Your task to perform on an android device: move an email to a new category in the gmail app Image 0: 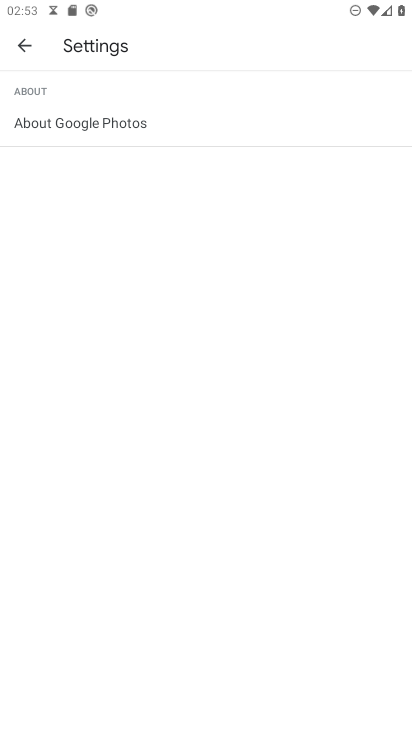
Step 0: press home button
Your task to perform on an android device: move an email to a new category in the gmail app Image 1: 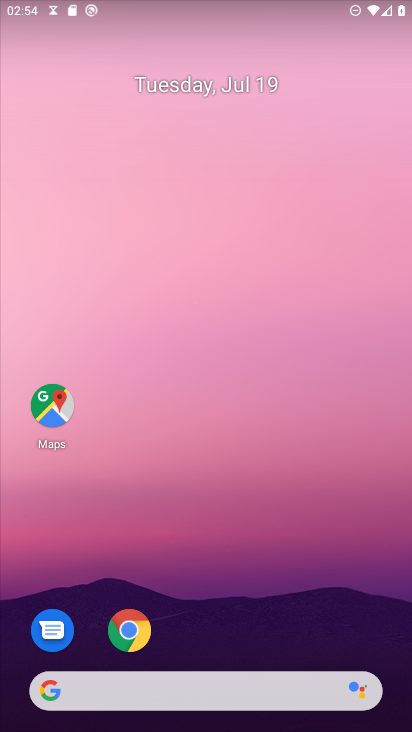
Step 1: drag from (174, 697) to (264, 244)
Your task to perform on an android device: move an email to a new category in the gmail app Image 2: 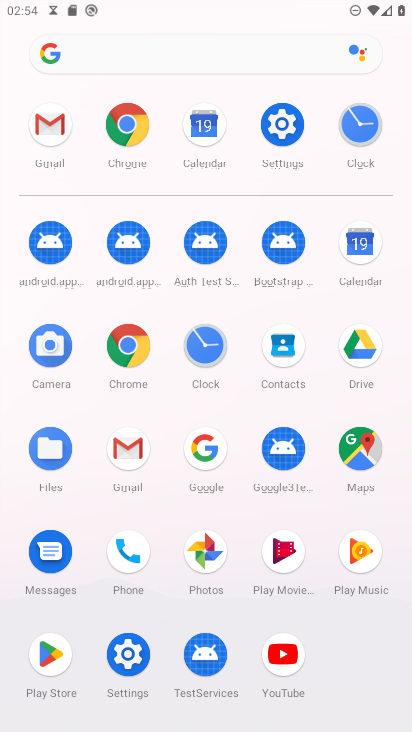
Step 2: click (130, 451)
Your task to perform on an android device: move an email to a new category in the gmail app Image 3: 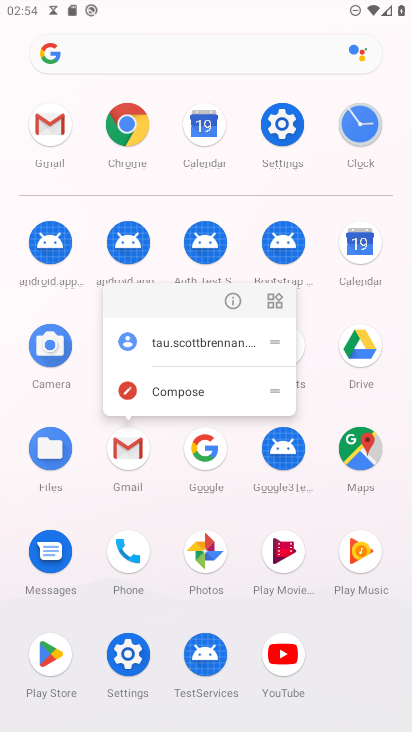
Step 3: click (130, 453)
Your task to perform on an android device: move an email to a new category in the gmail app Image 4: 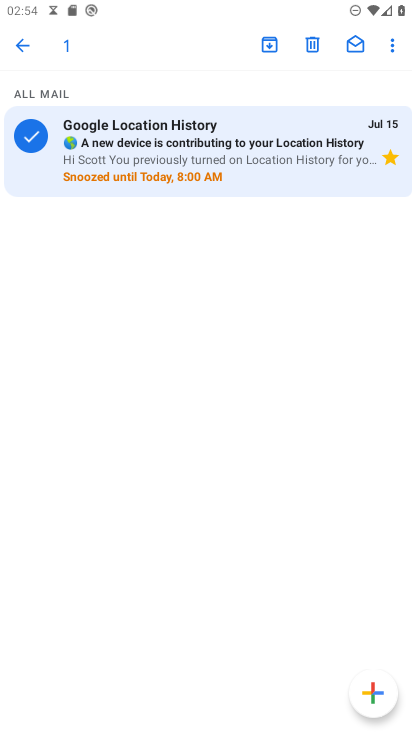
Step 4: click (392, 41)
Your task to perform on an android device: move an email to a new category in the gmail app Image 5: 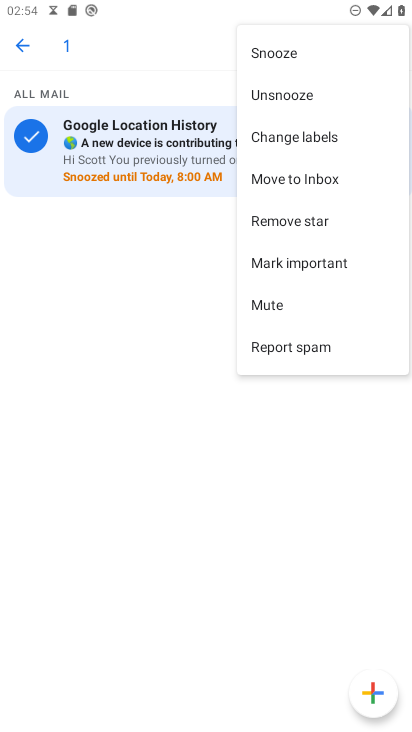
Step 5: click (312, 179)
Your task to perform on an android device: move an email to a new category in the gmail app Image 6: 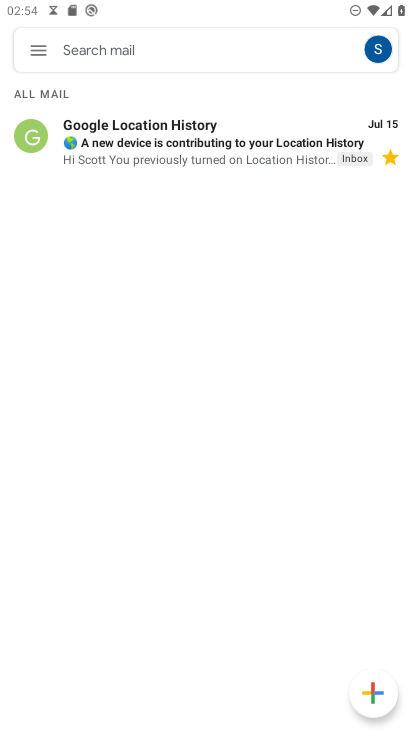
Step 6: click (33, 131)
Your task to perform on an android device: move an email to a new category in the gmail app Image 7: 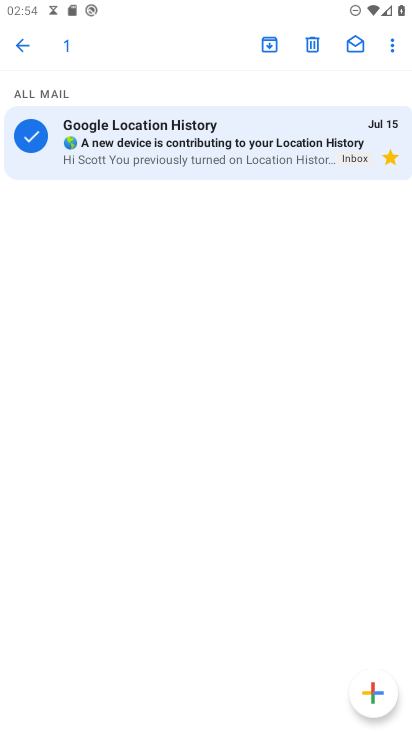
Step 7: click (390, 47)
Your task to perform on an android device: move an email to a new category in the gmail app Image 8: 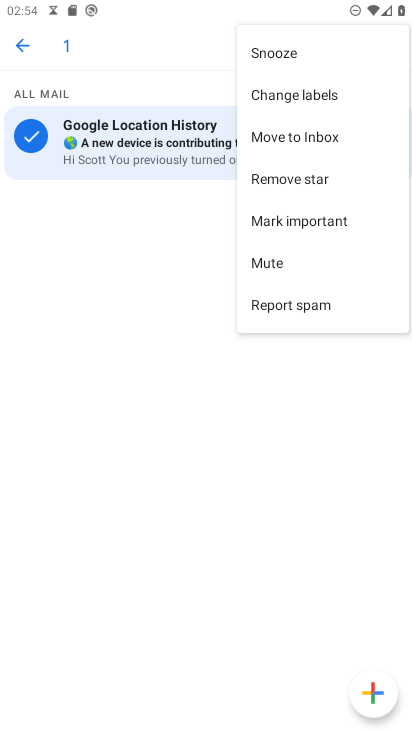
Step 8: click (306, 137)
Your task to perform on an android device: move an email to a new category in the gmail app Image 9: 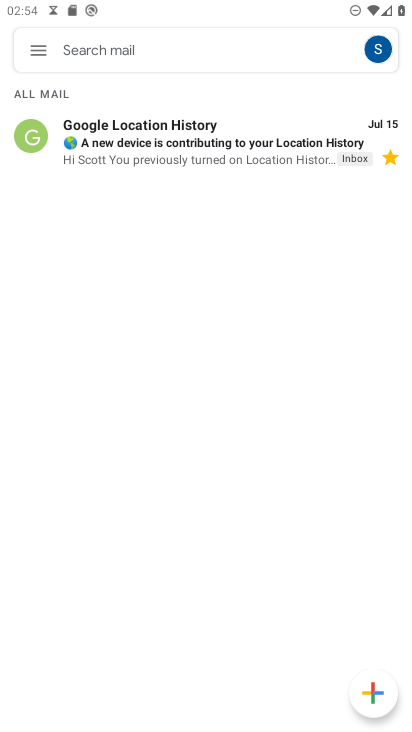
Step 9: task complete